Your task to perform on an android device: check android version Image 0: 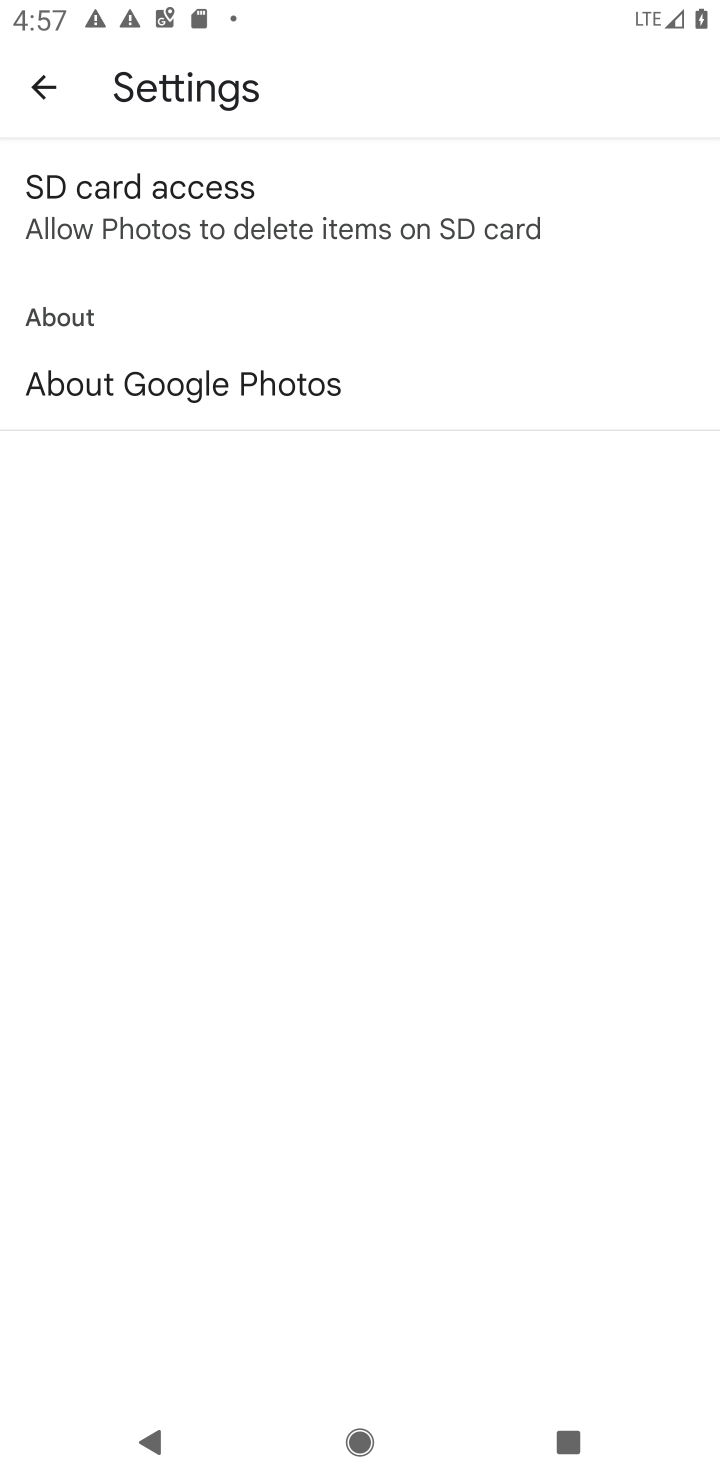
Step 0: press home button
Your task to perform on an android device: check android version Image 1: 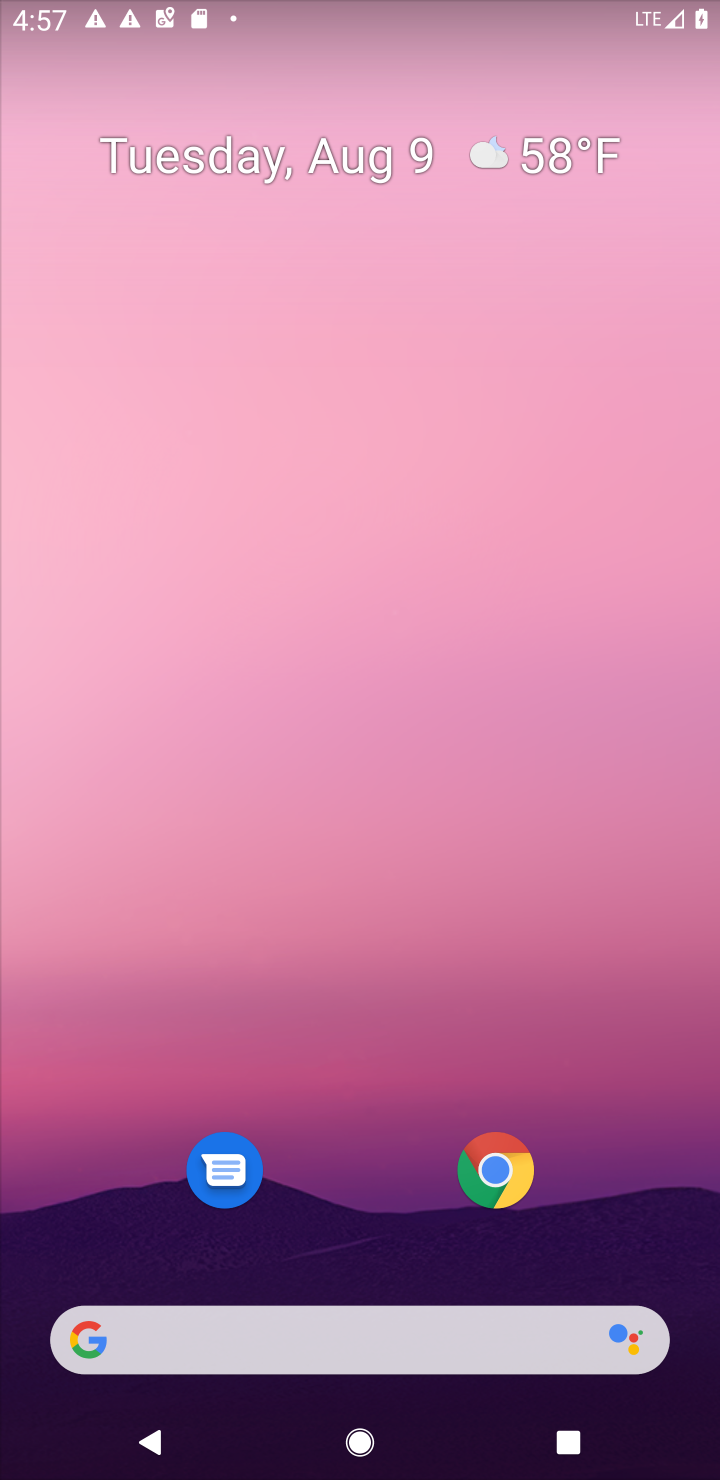
Step 1: drag from (381, 1237) to (507, 96)
Your task to perform on an android device: check android version Image 2: 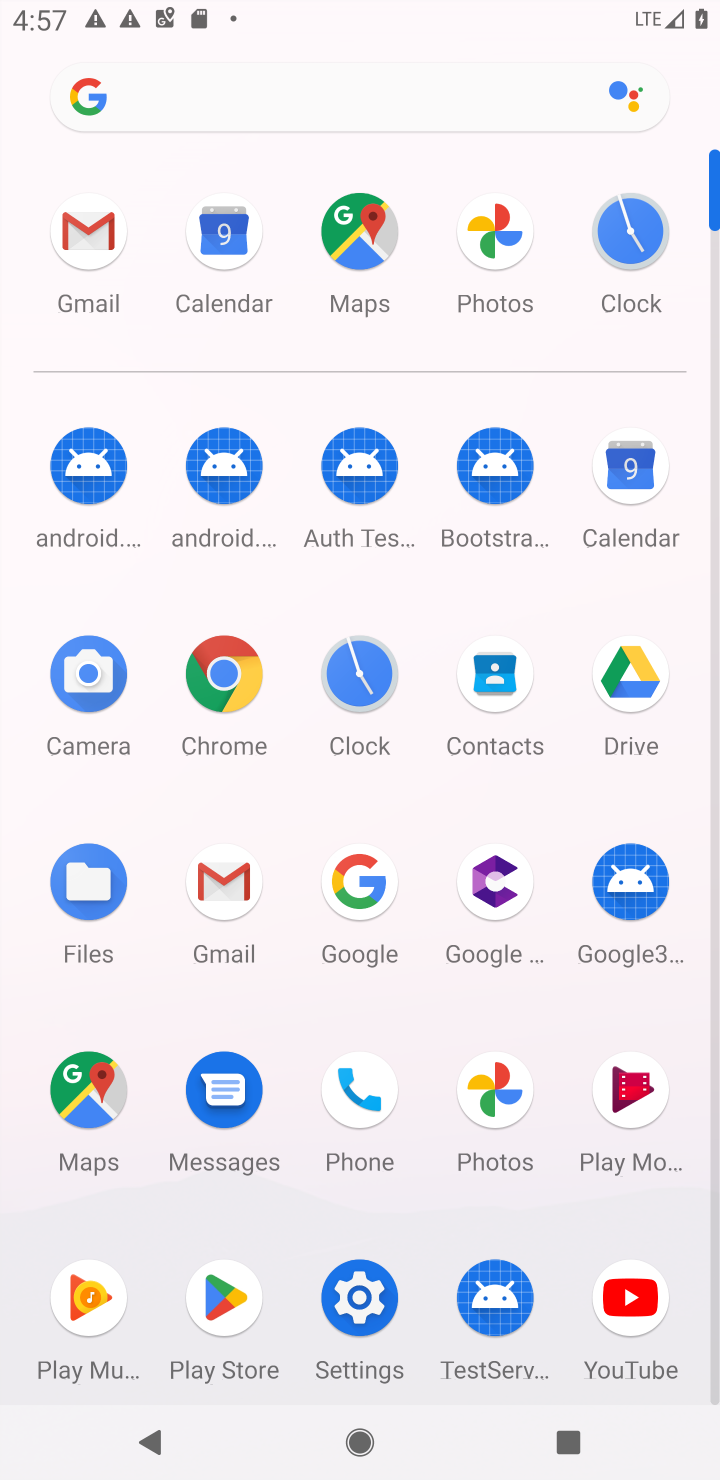
Step 2: click (350, 1286)
Your task to perform on an android device: check android version Image 3: 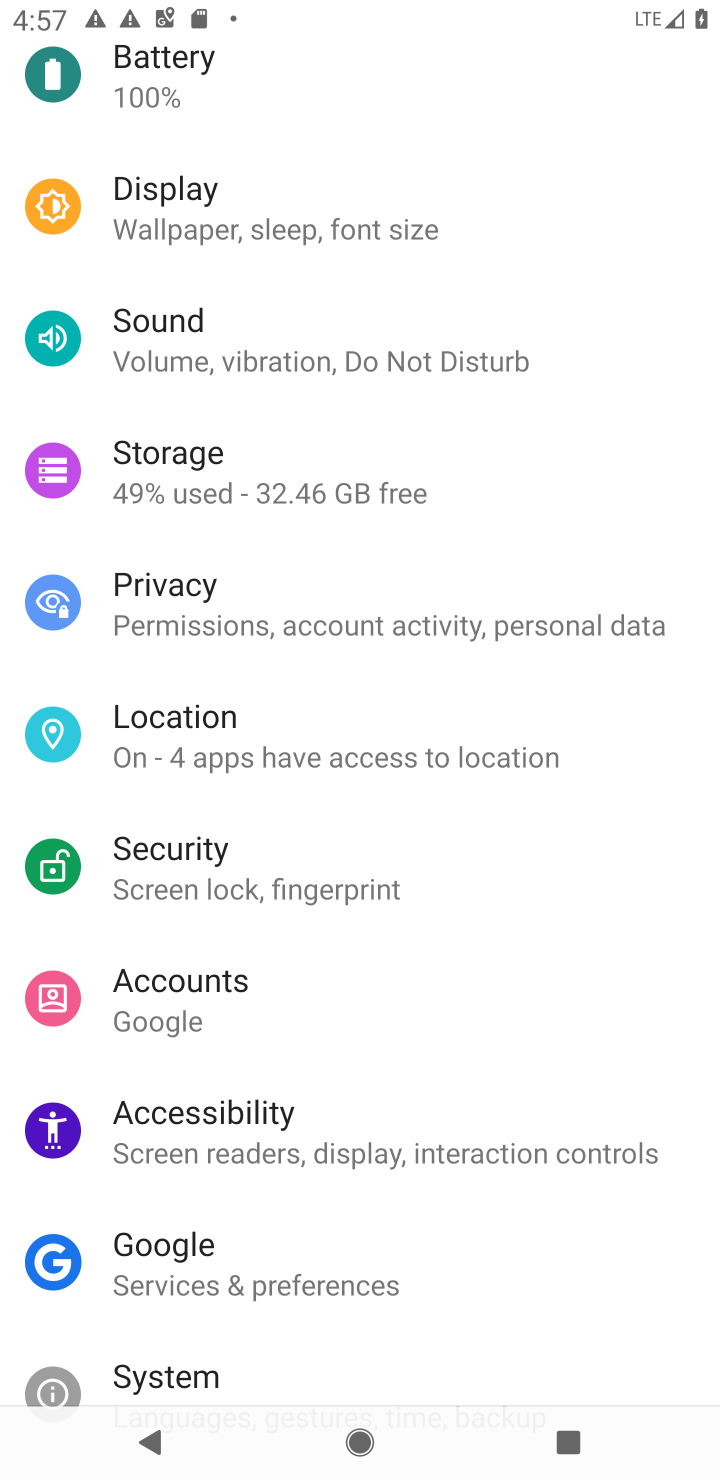
Step 3: drag from (577, 1305) to (653, 434)
Your task to perform on an android device: check android version Image 4: 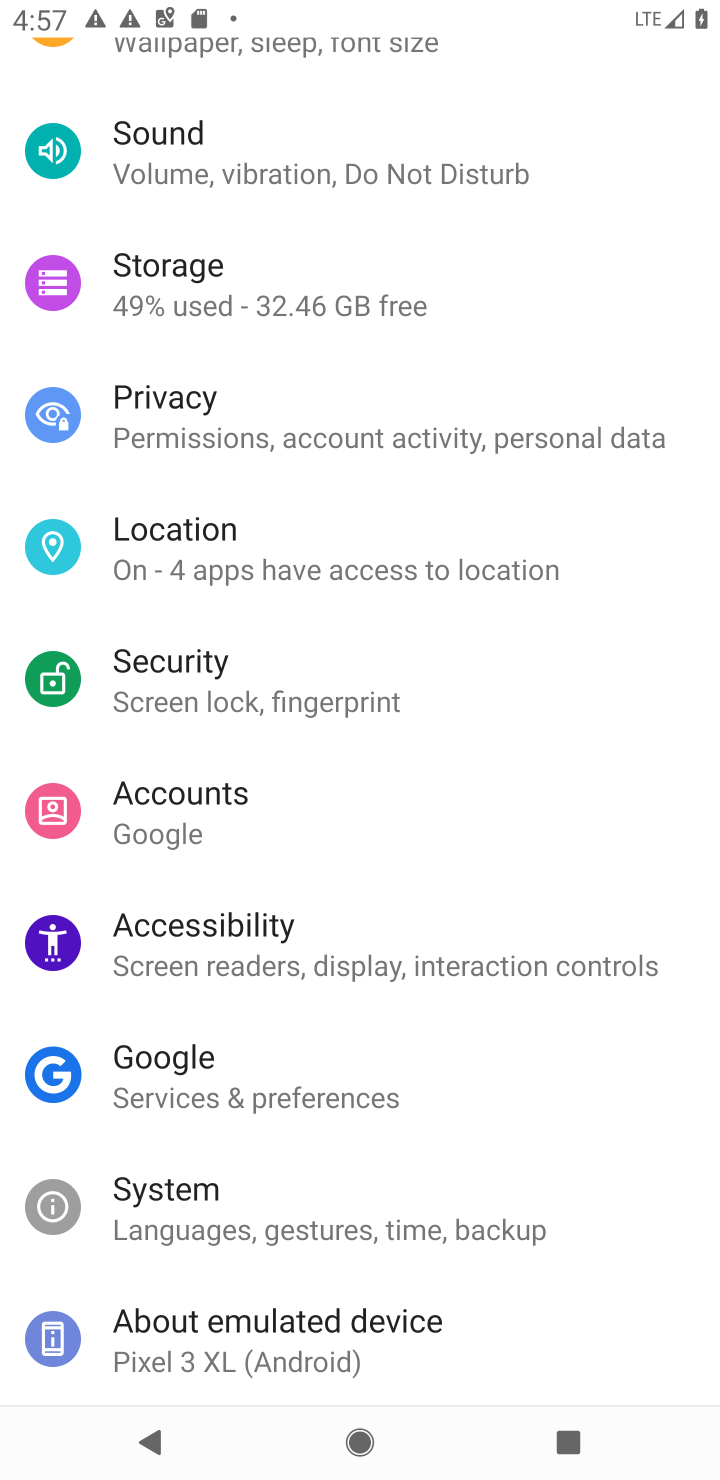
Step 4: click (240, 1368)
Your task to perform on an android device: check android version Image 5: 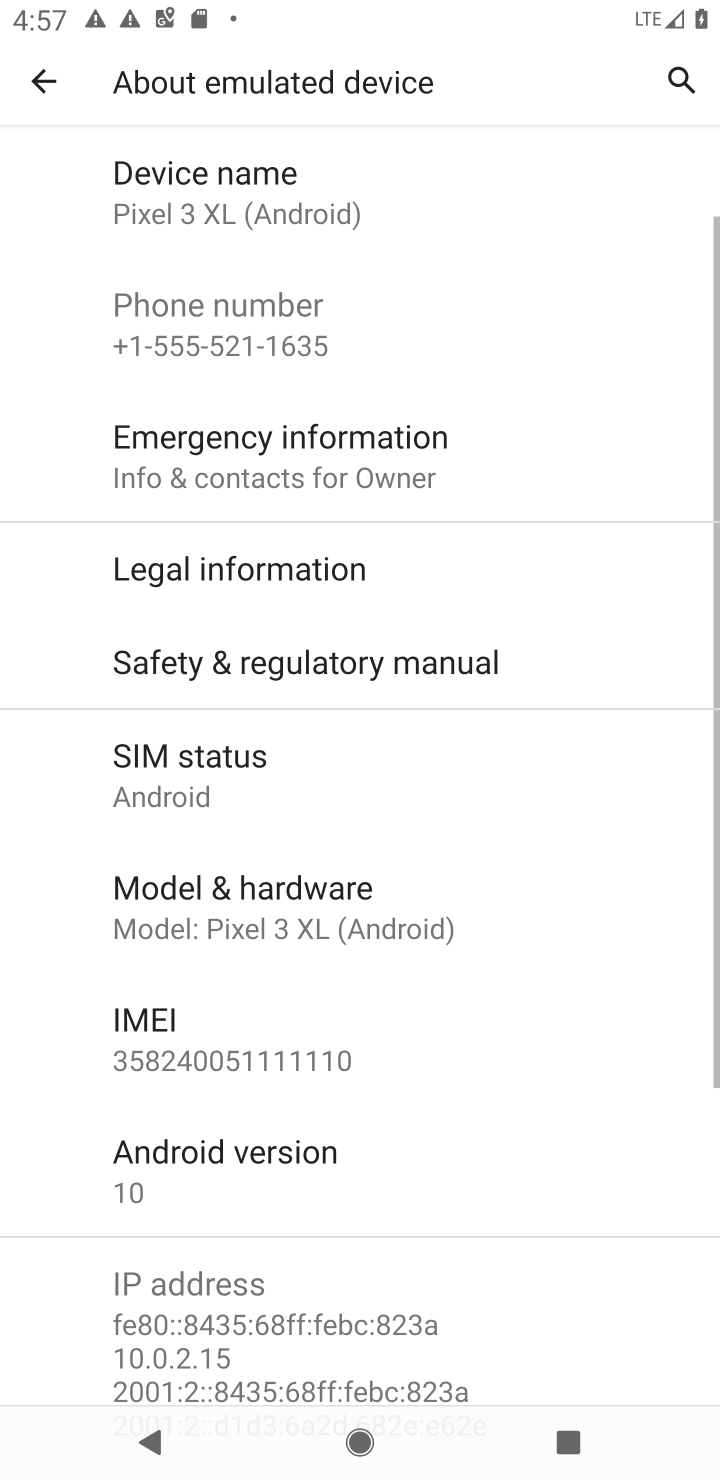
Step 5: click (288, 1170)
Your task to perform on an android device: check android version Image 6: 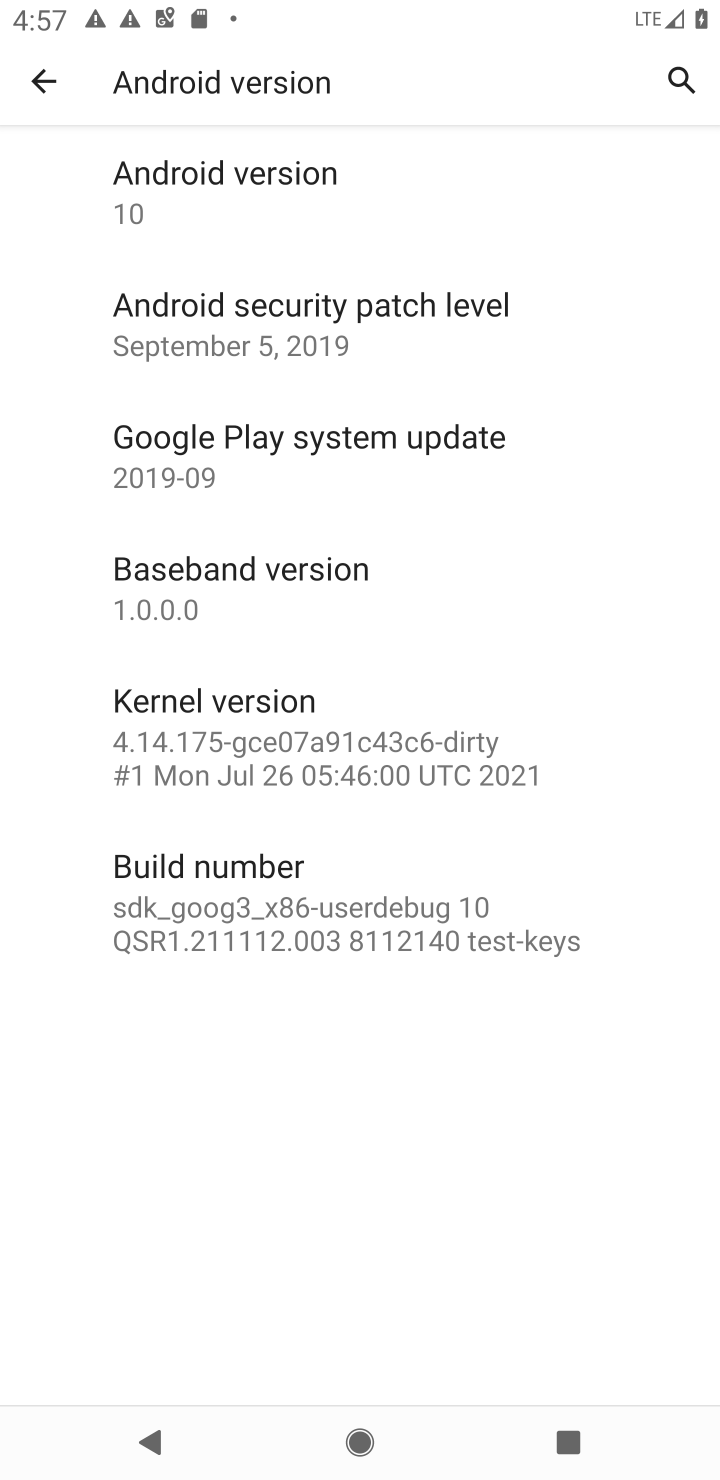
Step 6: task complete